Your task to perform on an android device: Show me popular games on the Play Store Image 0: 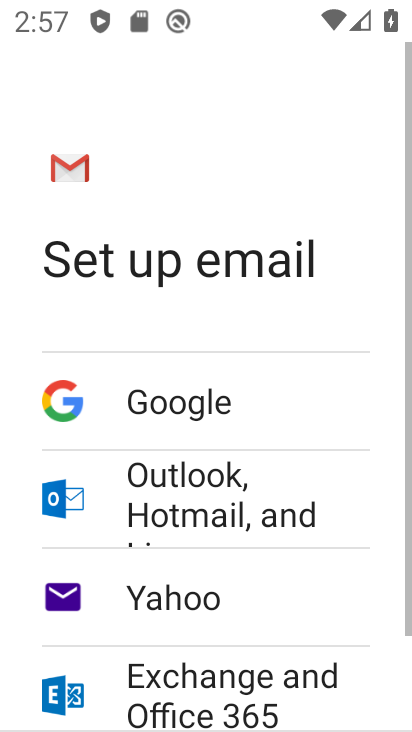
Step 0: press home button
Your task to perform on an android device: Show me popular games on the Play Store Image 1: 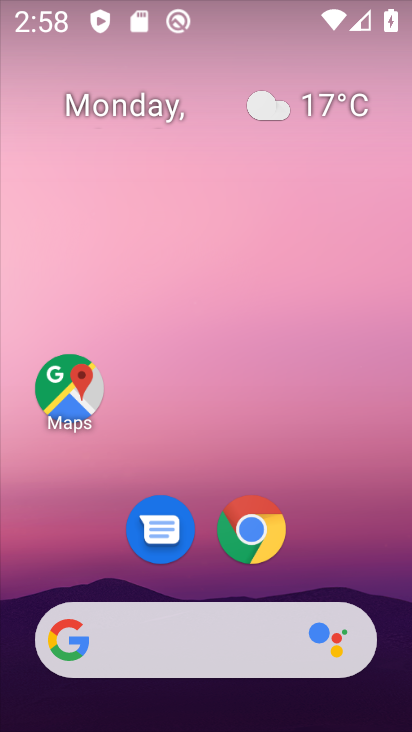
Step 1: drag from (202, 583) to (228, 58)
Your task to perform on an android device: Show me popular games on the Play Store Image 2: 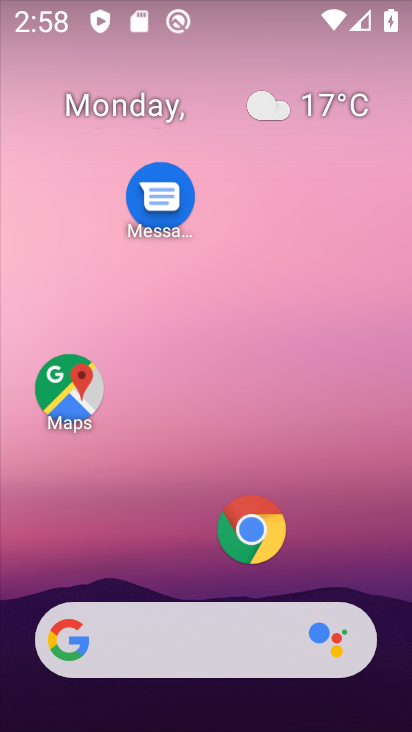
Step 2: drag from (198, 583) to (233, 66)
Your task to perform on an android device: Show me popular games on the Play Store Image 3: 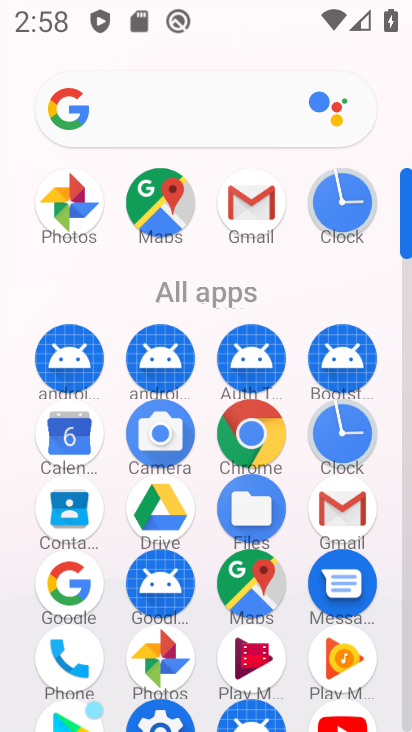
Step 3: drag from (216, 504) to (246, 110)
Your task to perform on an android device: Show me popular games on the Play Store Image 4: 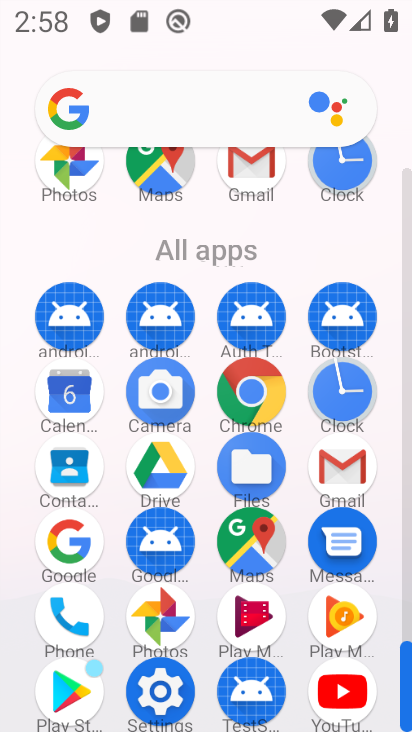
Step 4: click (59, 675)
Your task to perform on an android device: Show me popular games on the Play Store Image 5: 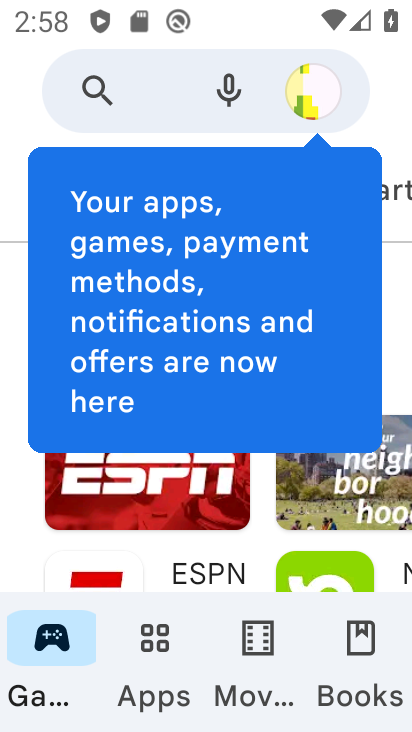
Step 5: drag from (258, 553) to (286, 220)
Your task to perform on an android device: Show me popular games on the Play Store Image 6: 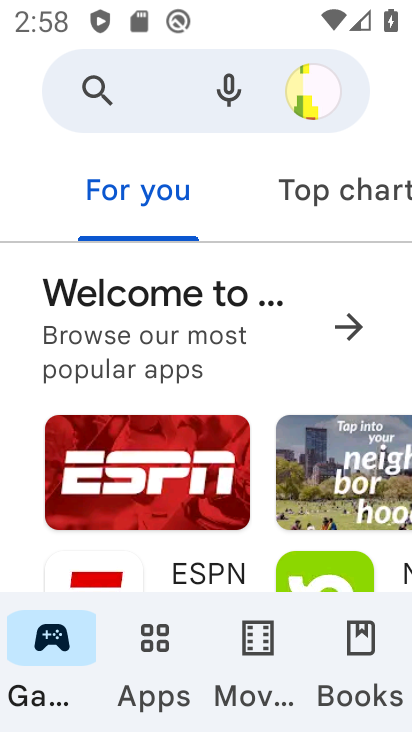
Step 6: click (293, 133)
Your task to perform on an android device: Show me popular games on the Play Store Image 7: 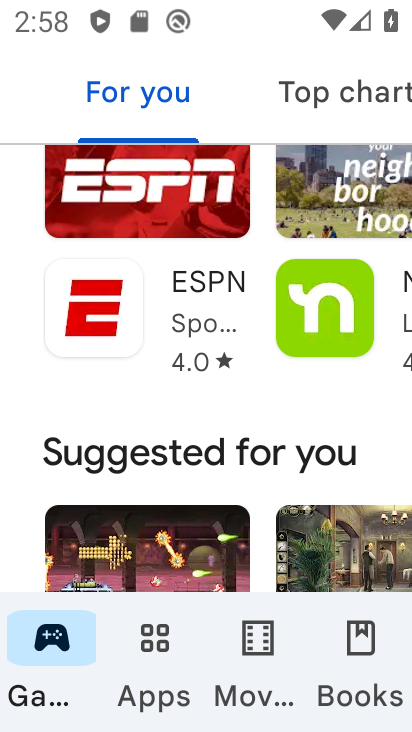
Step 7: drag from (271, 451) to (287, 162)
Your task to perform on an android device: Show me popular games on the Play Store Image 8: 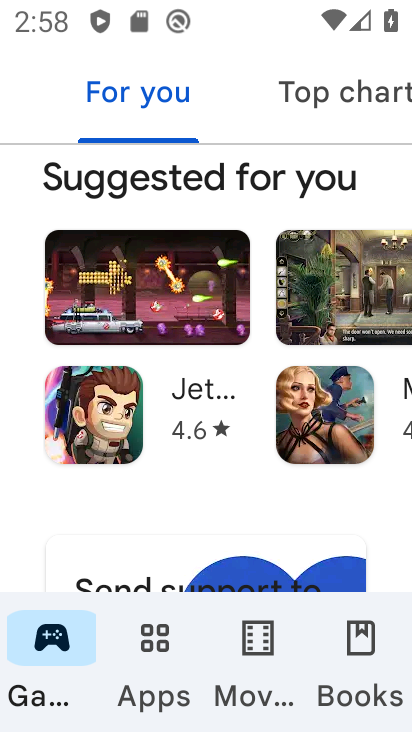
Step 8: drag from (246, 526) to (272, 108)
Your task to perform on an android device: Show me popular games on the Play Store Image 9: 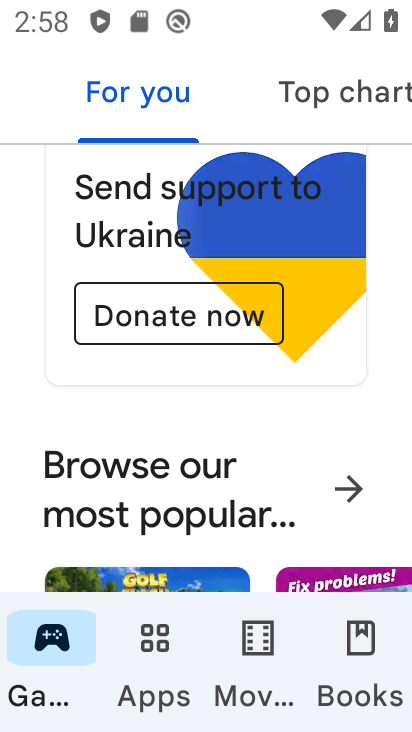
Step 9: click (341, 496)
Your task to perform on an android device: Show me popular games on the Play Store Image 10: 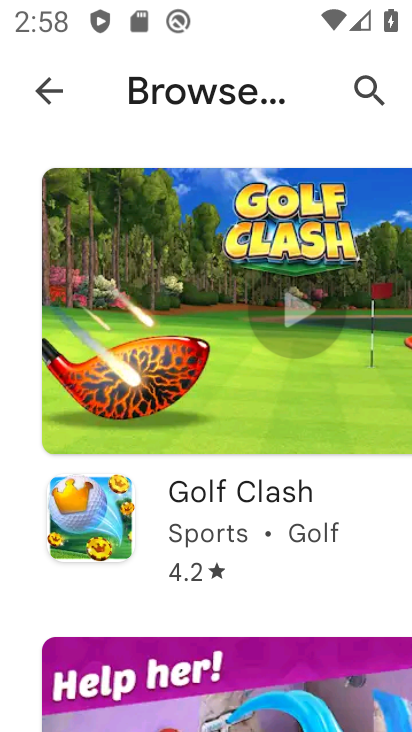
Step 10: task complete